Your task to perform on an android device: change alarm snooze length Image 0: 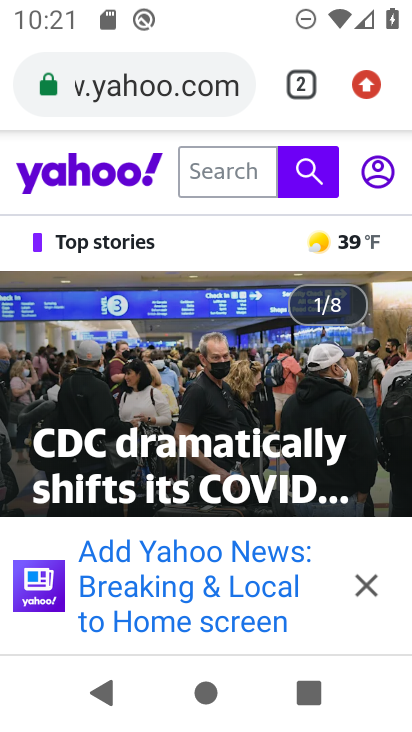
Step 0: press home button
Your task to perform on an android device: change alarm snooze length Image 1: 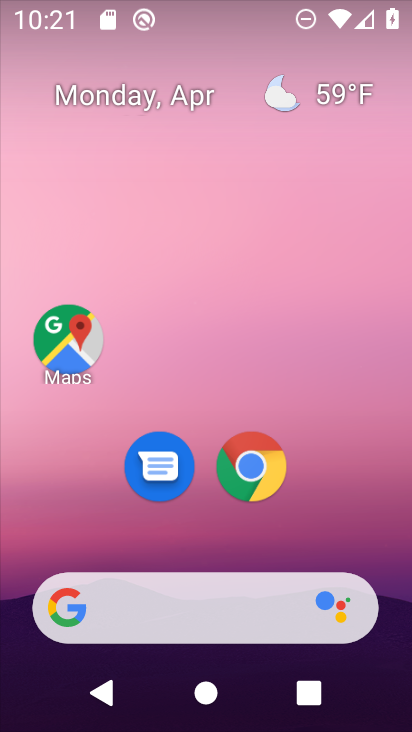
Step 1: drag from (224, 466) to (305, 10)
Your task to perform on an android device: change alarm snooze length Image 2: 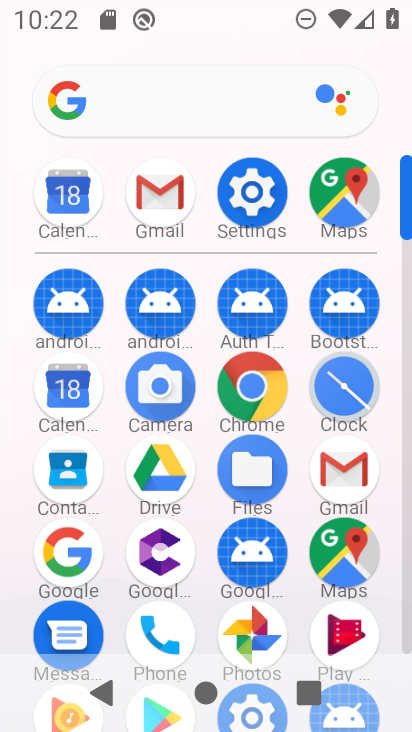
Step 2: click (360, 392)
Your task to perform on an android device: change alarm snooze length Image 3: 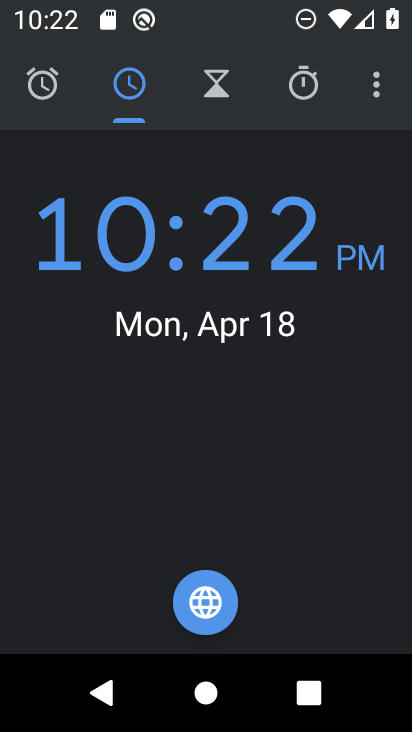
Step 3: click (378, 72)
Your task to perform on an android device: change alarm snooze length Image 4: 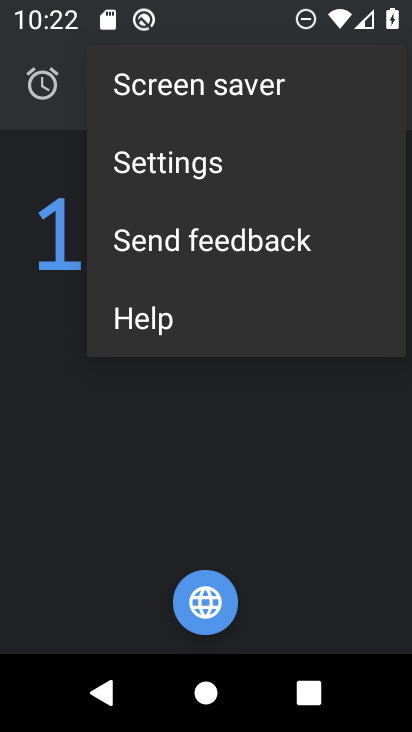
Step 4: click (228, 173)
Your task to perform on an android device: change alarm snooze length Image 5: 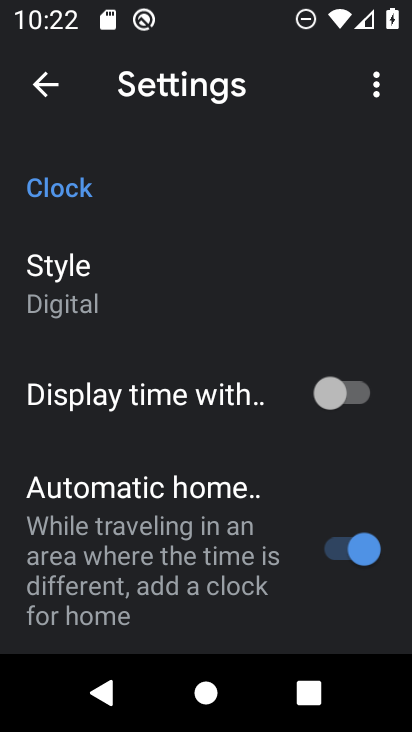
Step 5: drag from (139, 605) to (251, 106)
Your task to perform on an android device: change alarm snooze length Image 6: 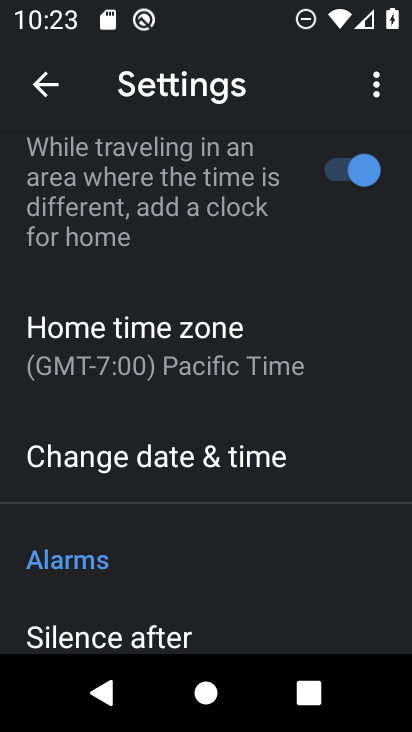
Step 6: drag from (175, 551) to (263, 65)
Your task to perform on an android device: change alarm snooze length Image 7: 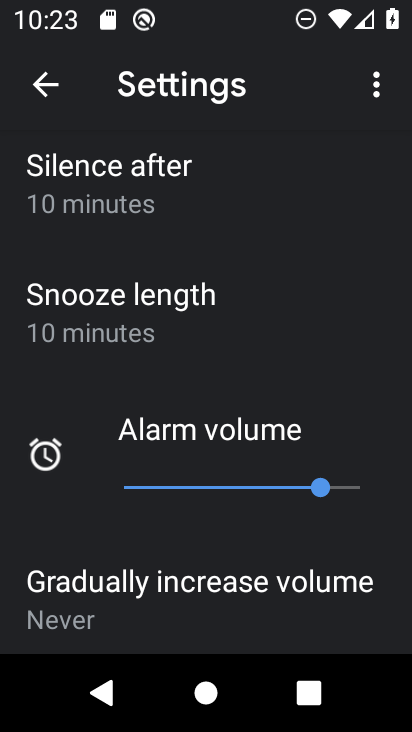
Step 7: click (138, 329)
Your task to perform on an android device: change alarm snooze length Image 8: 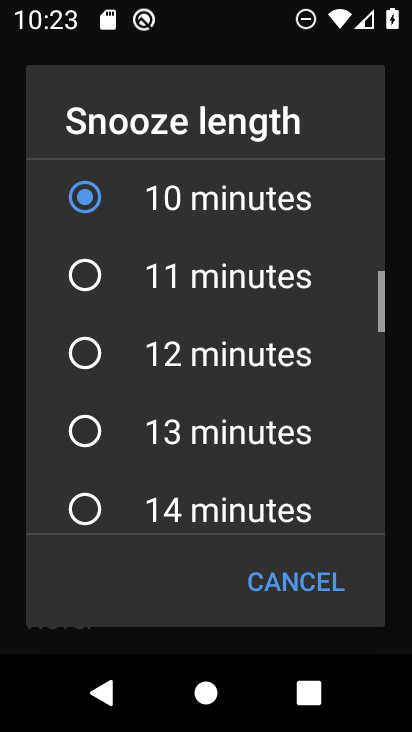
Step 8: click (179, 285)
Your task to perform on an android device: change alarm snooze length Image 9: 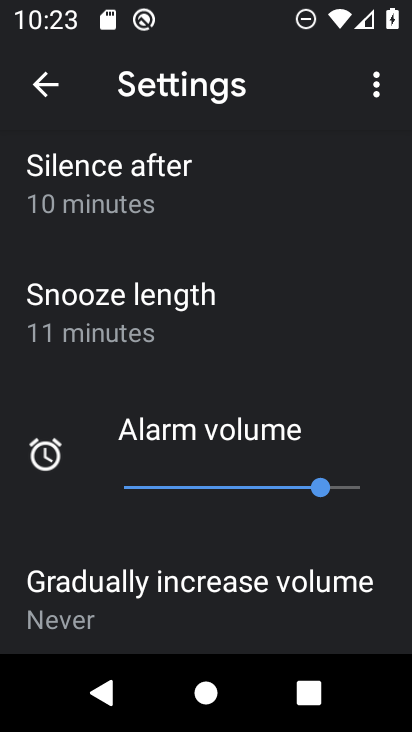
Step 9: task complete